Your task to perform on an android device: When is my next appointment? Image 0: 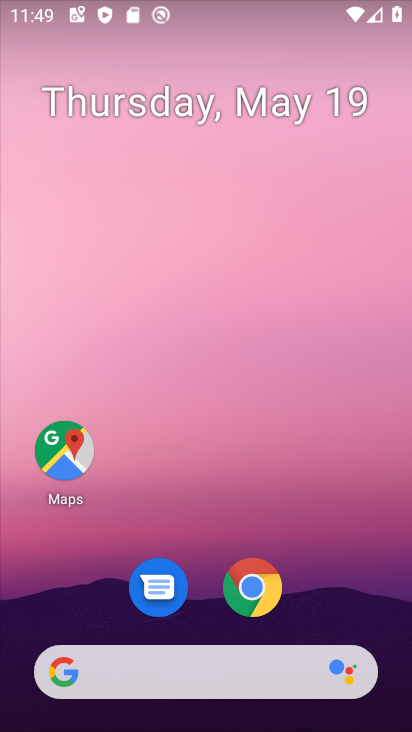
Step 0: drag from (174, 683) to (161, 397)
Your task to perform on an android device: When is my next appointment? Image 1: 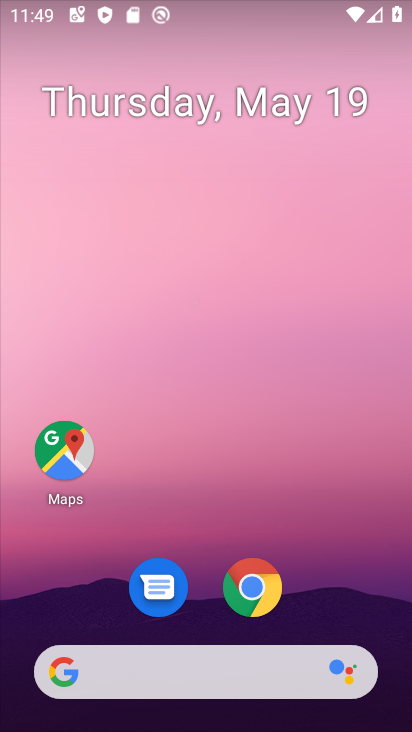
Step 1: drag from (179, 654) to (139, 146)
Your task to perform on an android device: When is my next appointment? Image 2: 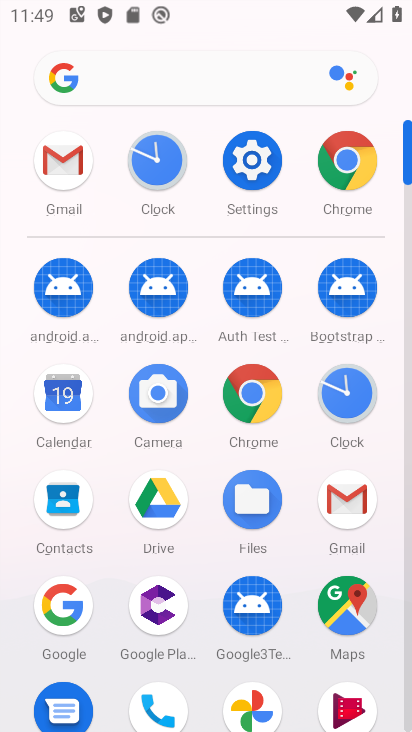
Step 2: click (61, 383)
Your task to perform on an android device: When is my next appointment? Image 3: 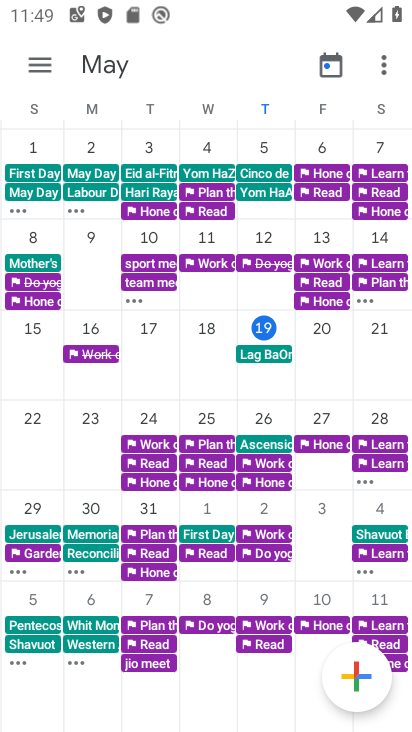
Step 3: click (37, 39)
Your task to perform on an android device: When is my next appointment? Image 4: 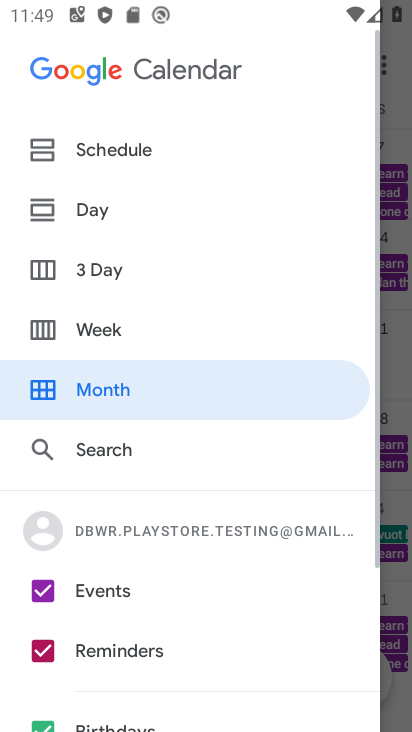
Step 4: click (118, 169)
Your task to perform on an android device: When is my next appointment? Image 5: 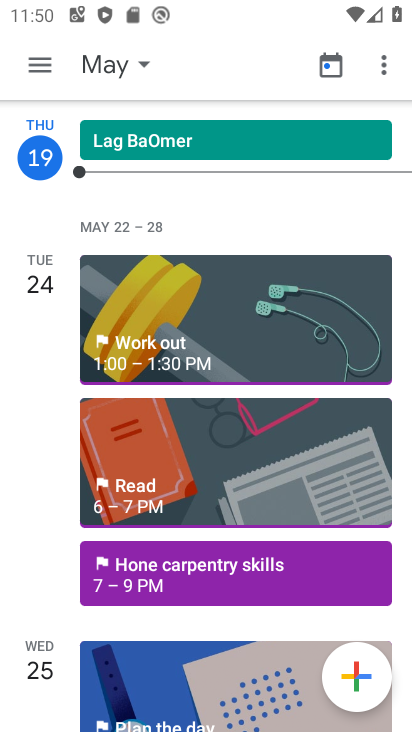
Step 5: task complete